Your task to perform on an android device: clear all cookies in the chrome app Image 0: 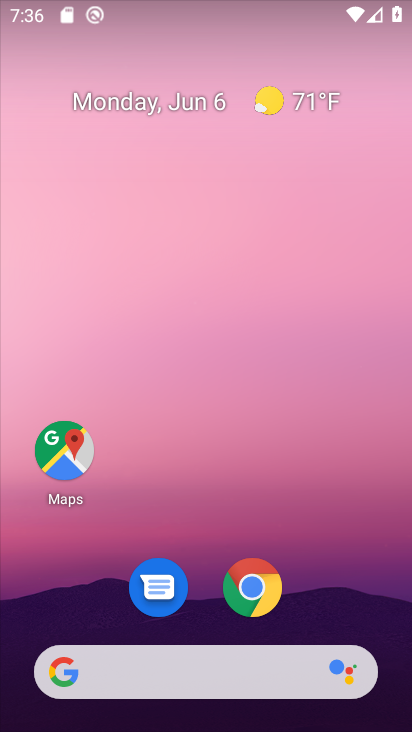
Step 0: click (241, 592)
Your task to perform on an android device: clear all cookies in the chrome app Image 1: 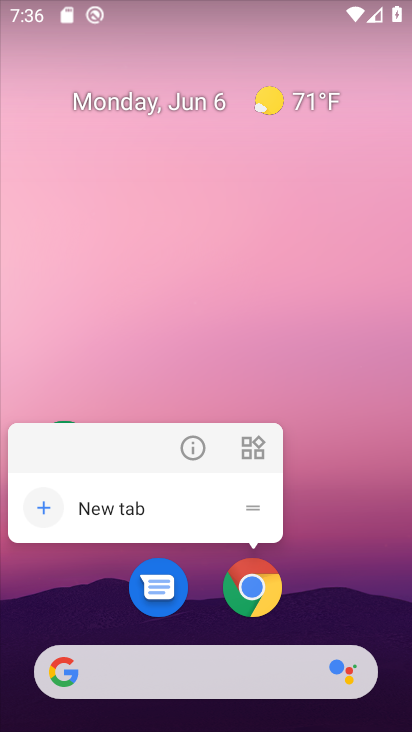
Step 1: click (242, 592)
Your task to perform on an android device: clear all cookies in the chrome app Image 2: 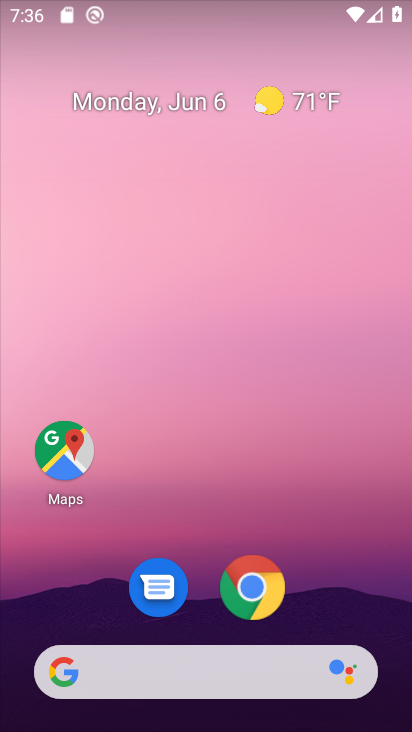
Step 2: click (252, 596)
Your task to perform on an android device: clear all cookies in the chrome app Image 3: 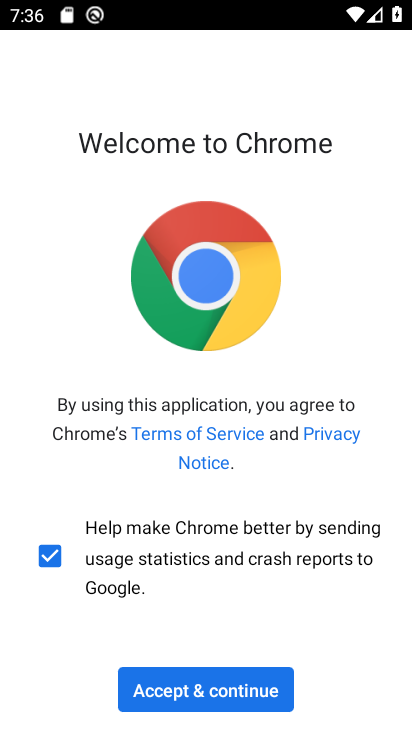
Step 3: click (217, 701)
Your task to perform on an android device: clear all cookies in the chrome app Image 4: 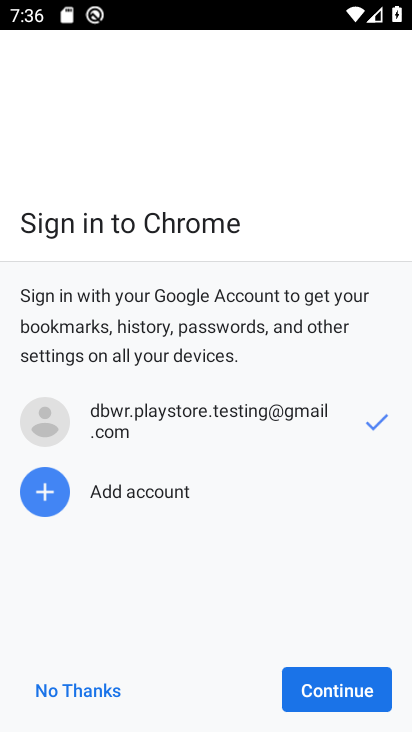
Step 4: click (290, 704)
Your task to perform on an android device: clear all cookies in the chrome app Image 5: 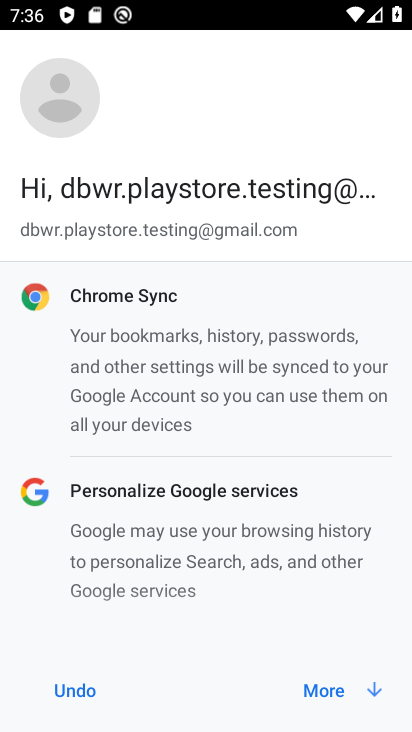
Step 5: click (313, 692)
Your task to perform on an android device: clear all cookies in the chrome app Image 6: 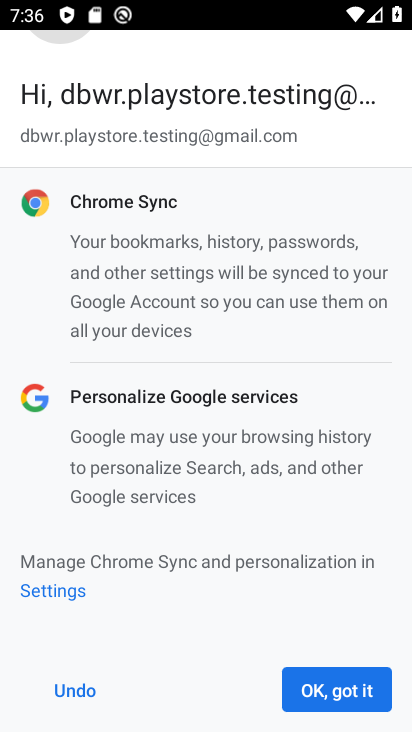
Step 6: click (366, 691)
Your task to perform on an android device: clear all cookies in the chrome app Image 7: 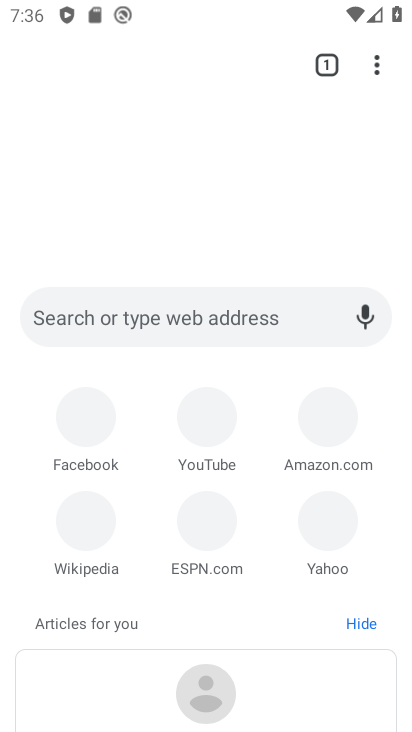
Step 7: click (377, 72)
Your task to perform on an android device: clear all cookies in the chrome app Image 8: 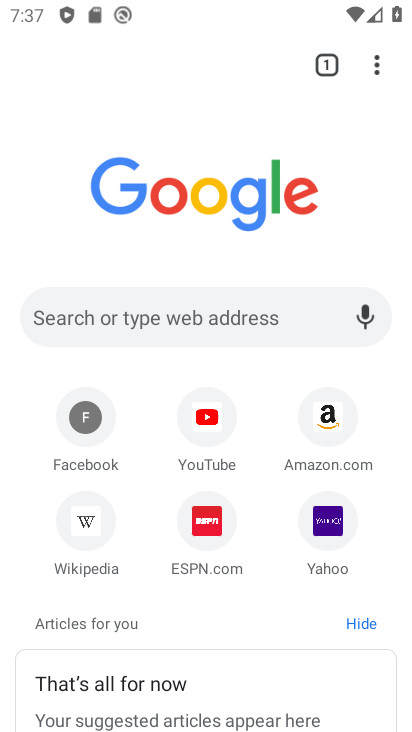
Step 8: click (375, 66)
Your task to perform on an android device: clear all cookies in the chrome app Image 9: 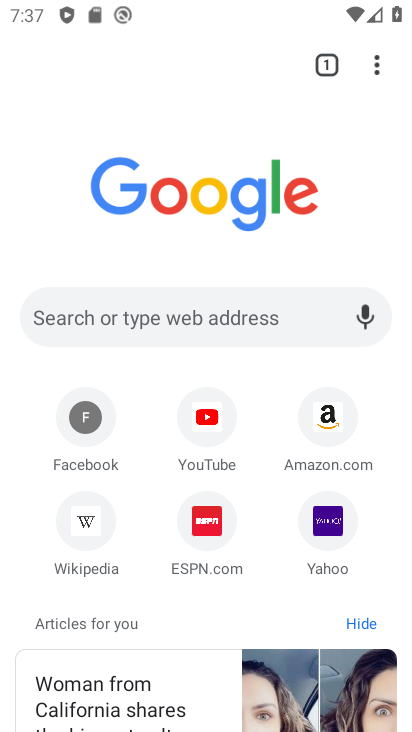
Step 9: click (375, 66)
Your task to perform on an android device: clear all cookies in the chrome app Image 10: 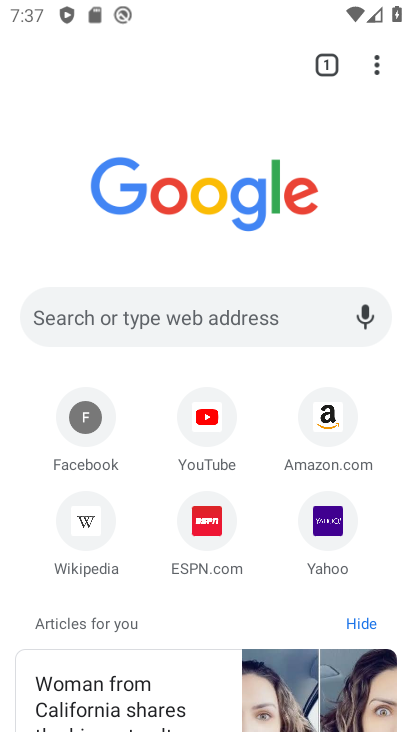
Step 10: click (382, 68)
Your task to perform on an android device: clear all cookies in the chrome app Image 11: 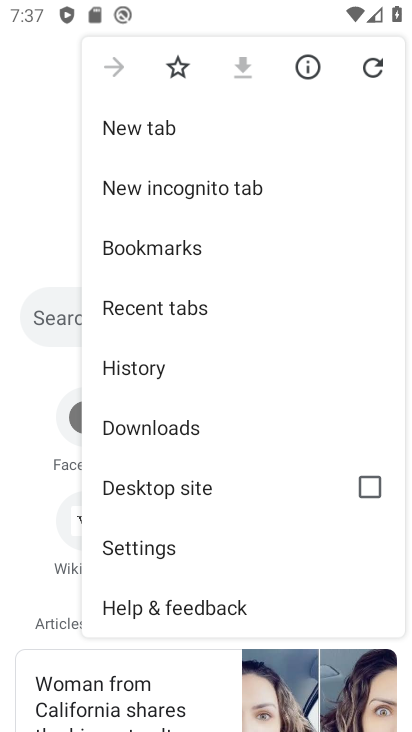
Step 11: click (146, 377)
Your task to perform on an android device: clear all cookies in the chrome app Image 12: 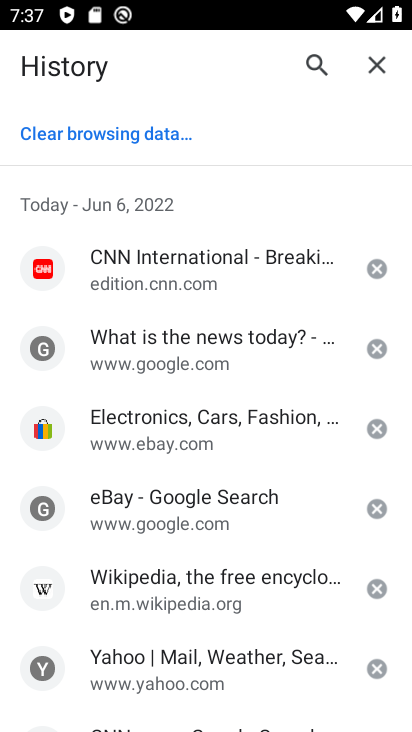
Step 12: click (119, 134)
Your task to perform on an android device: clear all cookies in the chrome app Image 13: 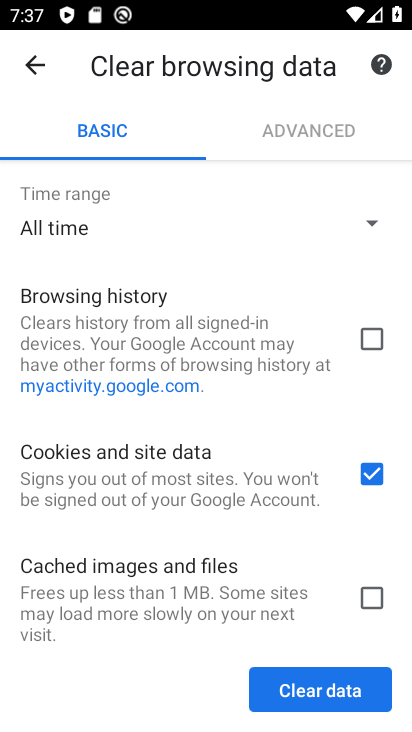
Step 13: click (297, 700)
Your task to perform on an android device: clear all cookies in the chrome app Image 14: 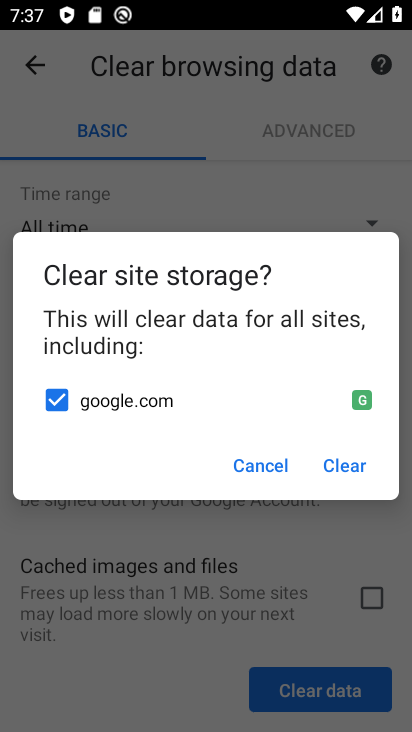
Step 14: click (365, 465)
Your task to perform on an android device: clear all cookies in the chrome app Image 15: 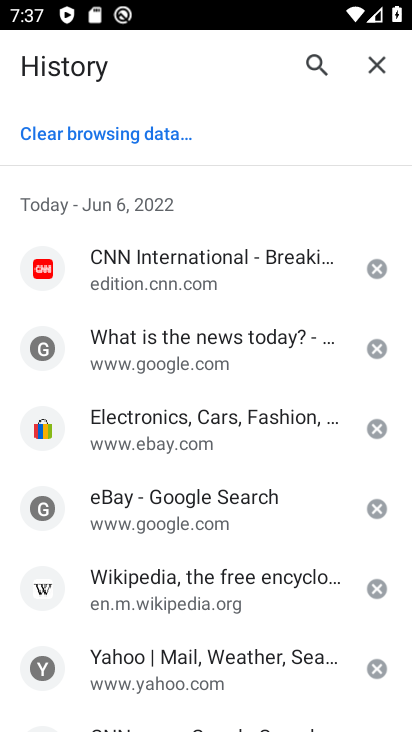
Step 15: task complete